Your task to perform on an android device: Go to Reddit.com Image 0: 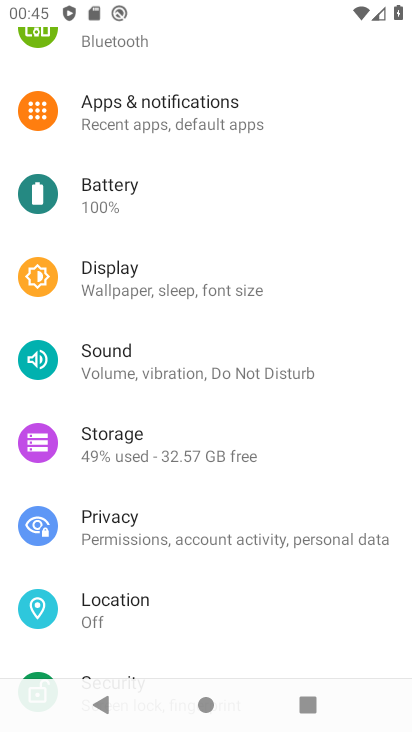
Step 0: press home button
Your task to perform on an android device: Go to Reddit.com Image 1: 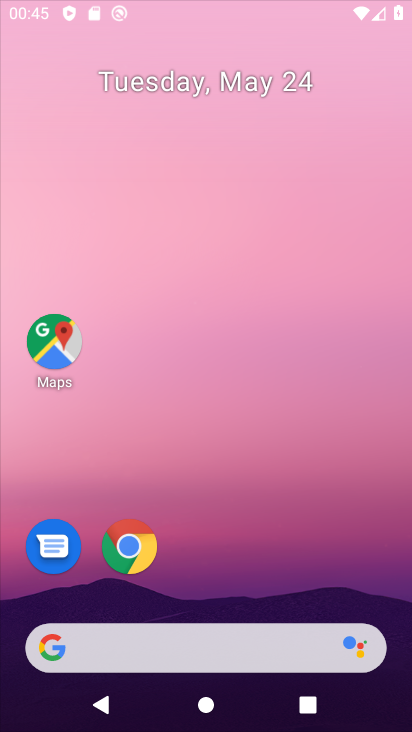
Step 1: drag from (262, 628) to (327, 4)
Your task to perform on an android device: Go to Reddit.com Image 2: 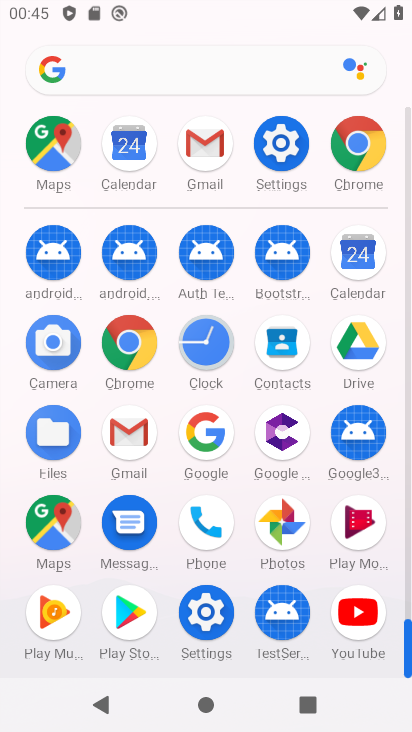
Step 2: click (133, 310)
Your task to perform on an android device: Go to Reddit.com Image 3: 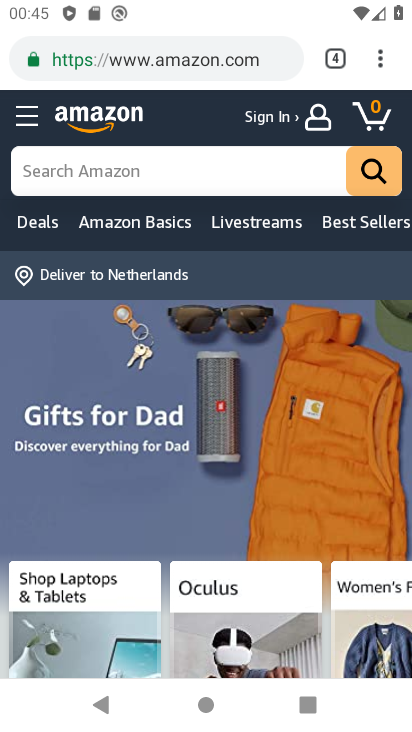
Step 3: click (229, 58)
Your task to perform on an android device: Go to Reddit.com Image 4: 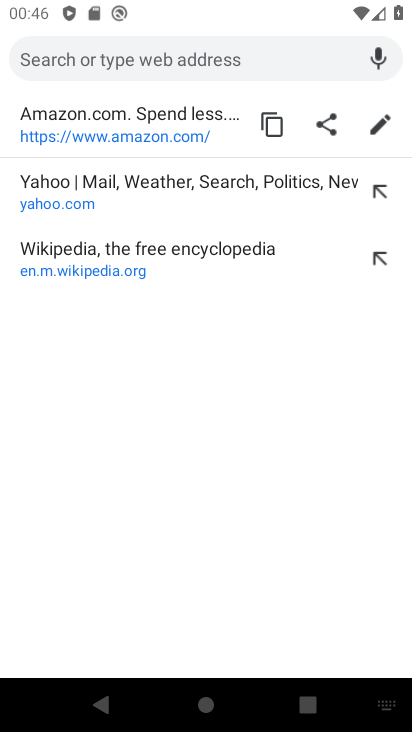
Step 4: type "reddit.com"
Your task to perform on an android device: Go to Reddit.com Image 5: 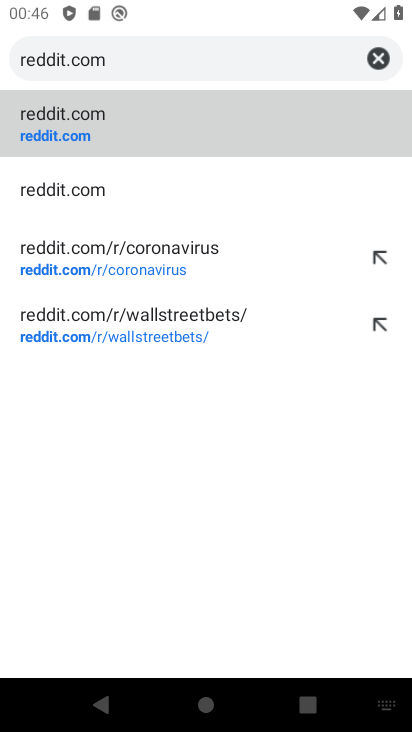
Step 5: click (211, 123)
Your task to perform on an android device: Go to Reddit.com Image 6: 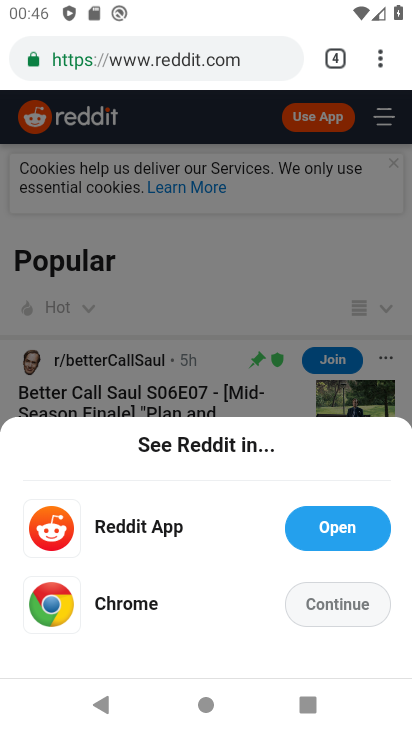
Step 6: task complete